Your task to perform on an android device: Open internet settings Image 0: 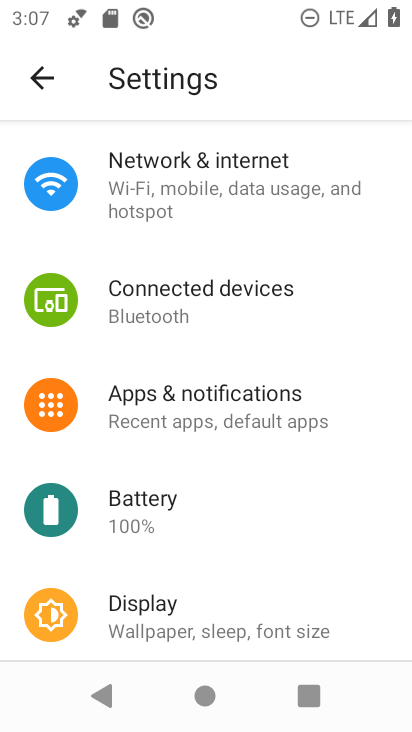
Step 0: click (214, 174)
Your task to perform on an android device: Open internet settings Image 1: 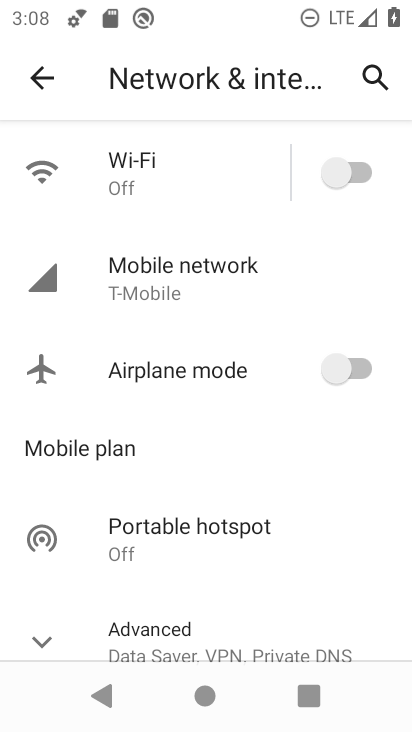
Step 1: task complete